Your task to perform on an android device: Search for "logitech g pro" on walmart, select the first entry, add it to the cart, then select checkout. Image 0: 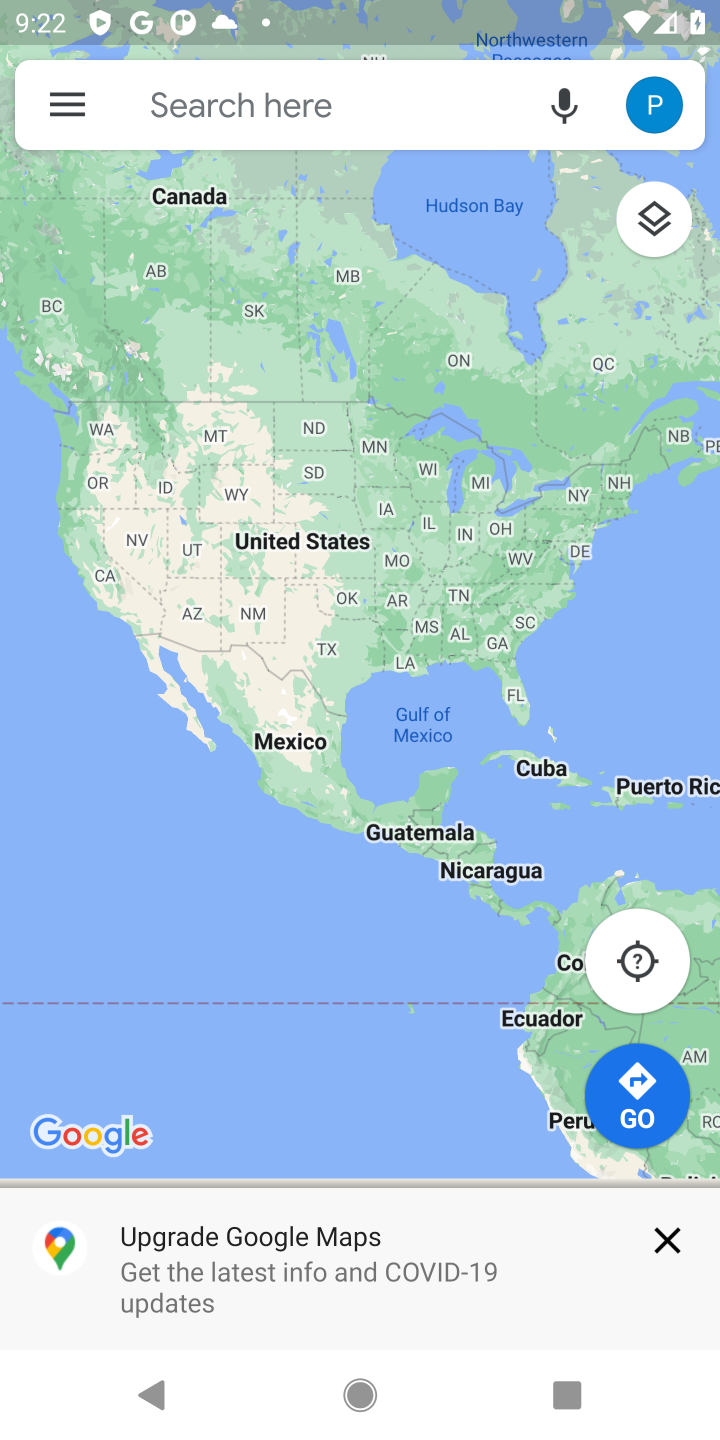
Step 0: press home button
Your task to perform on an android device: Search for "logitech g pro" on walmart, select the first entry, add it to the cart, then select checkout. Image 1: 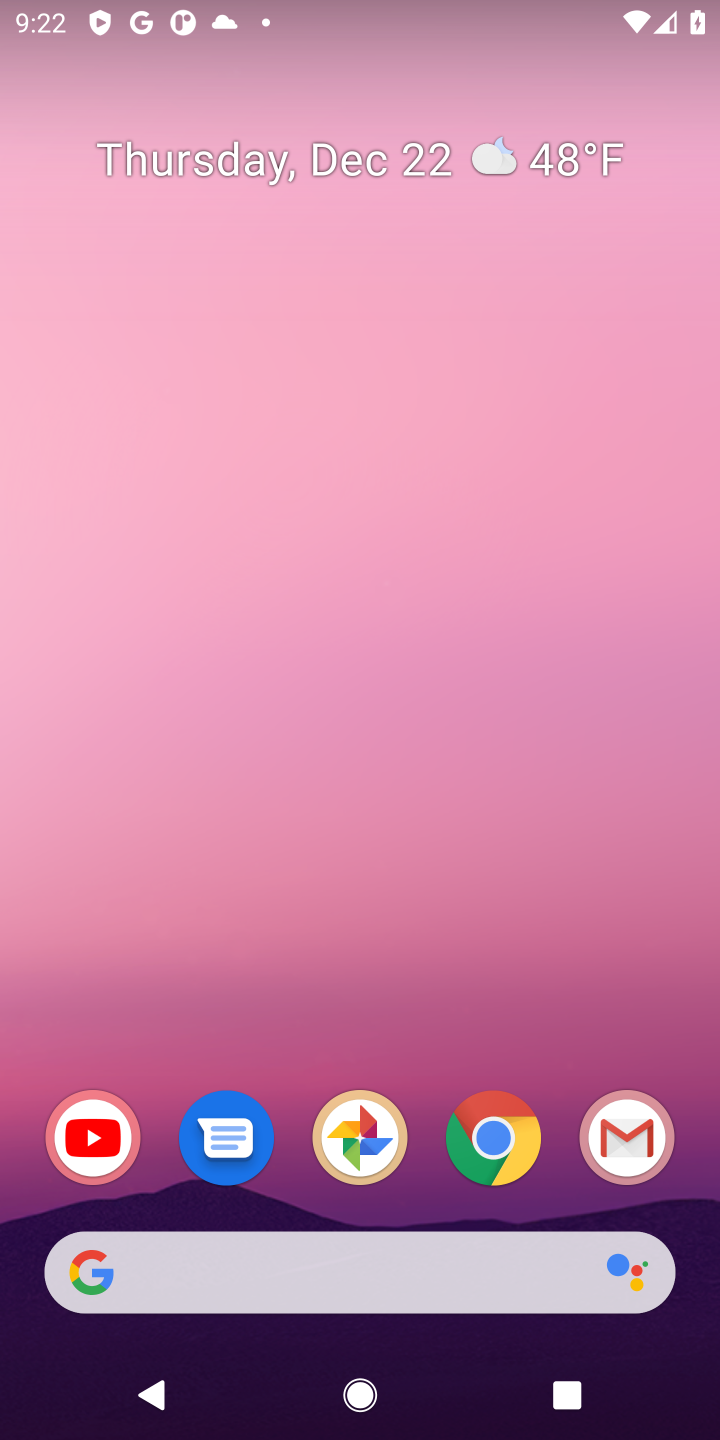
Step 1: click (479, 1185)
Your task to perform on an android device: Search for "logitech g pro" on walmart, select the first entry, add it to the cart, then select checkout. Image 2: 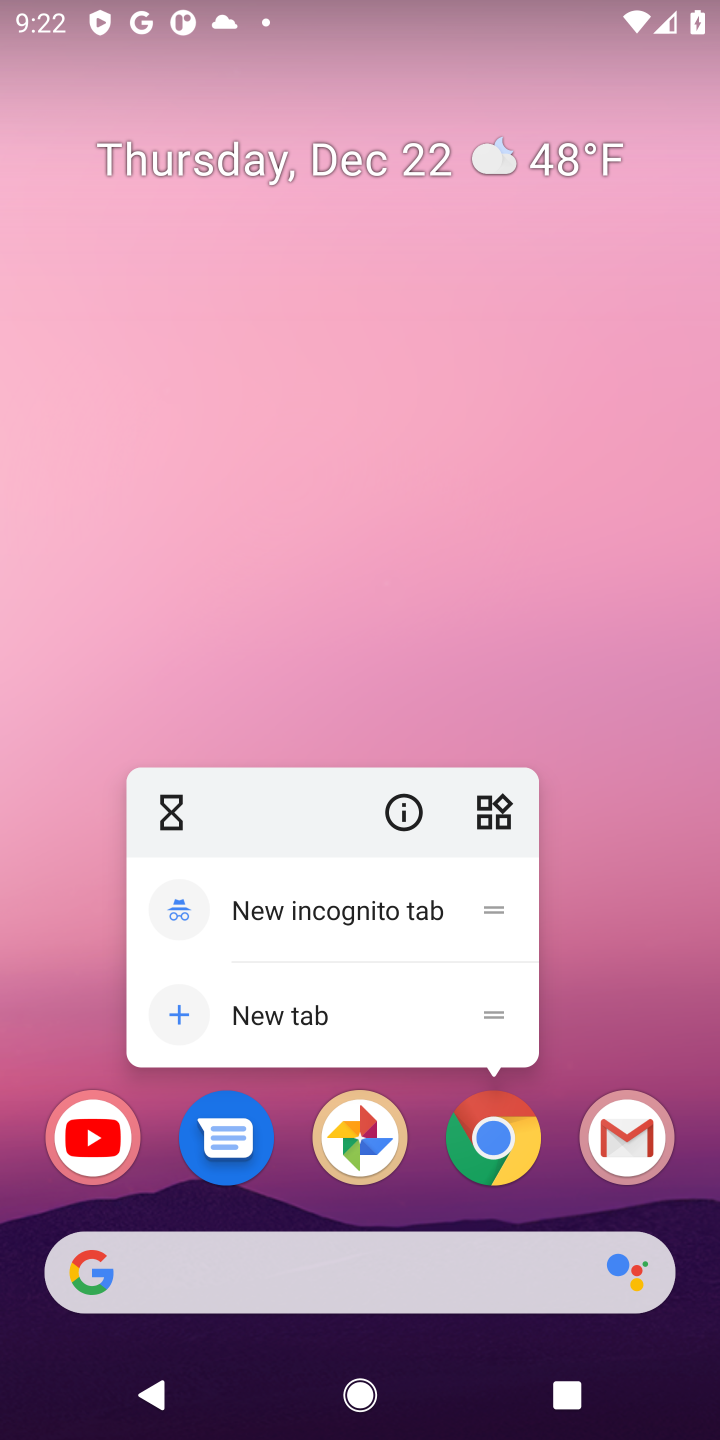
Step 2: click (493, 1150)
Your task to perform on an android device: Search for "logitech g pro" on walmart, select the first entry, add it to the cart, then select checkout. Image 3: 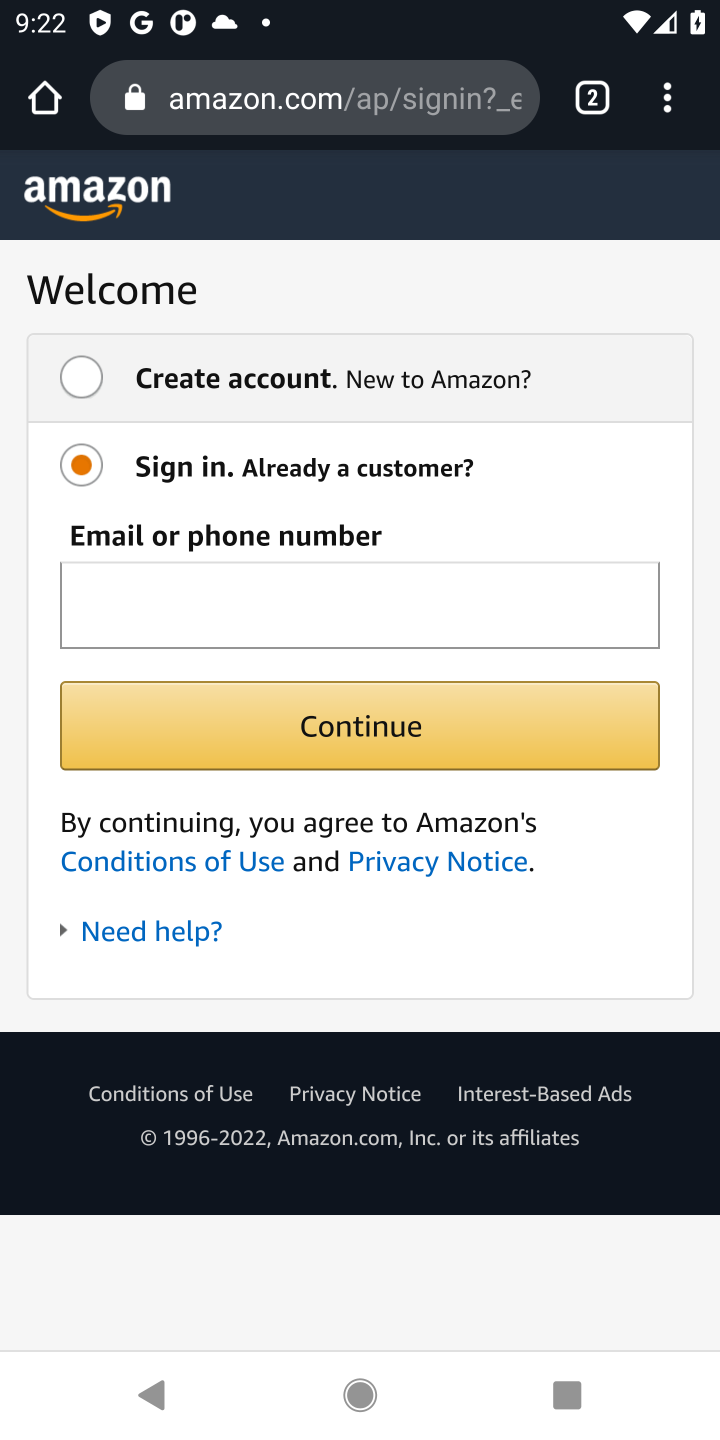
Step 3: click (227, 106)
Your task to perform on an android device: Search for "logitech g pro" on walmart, select the first entry, add it to the cart, then select checkout. Image 4: 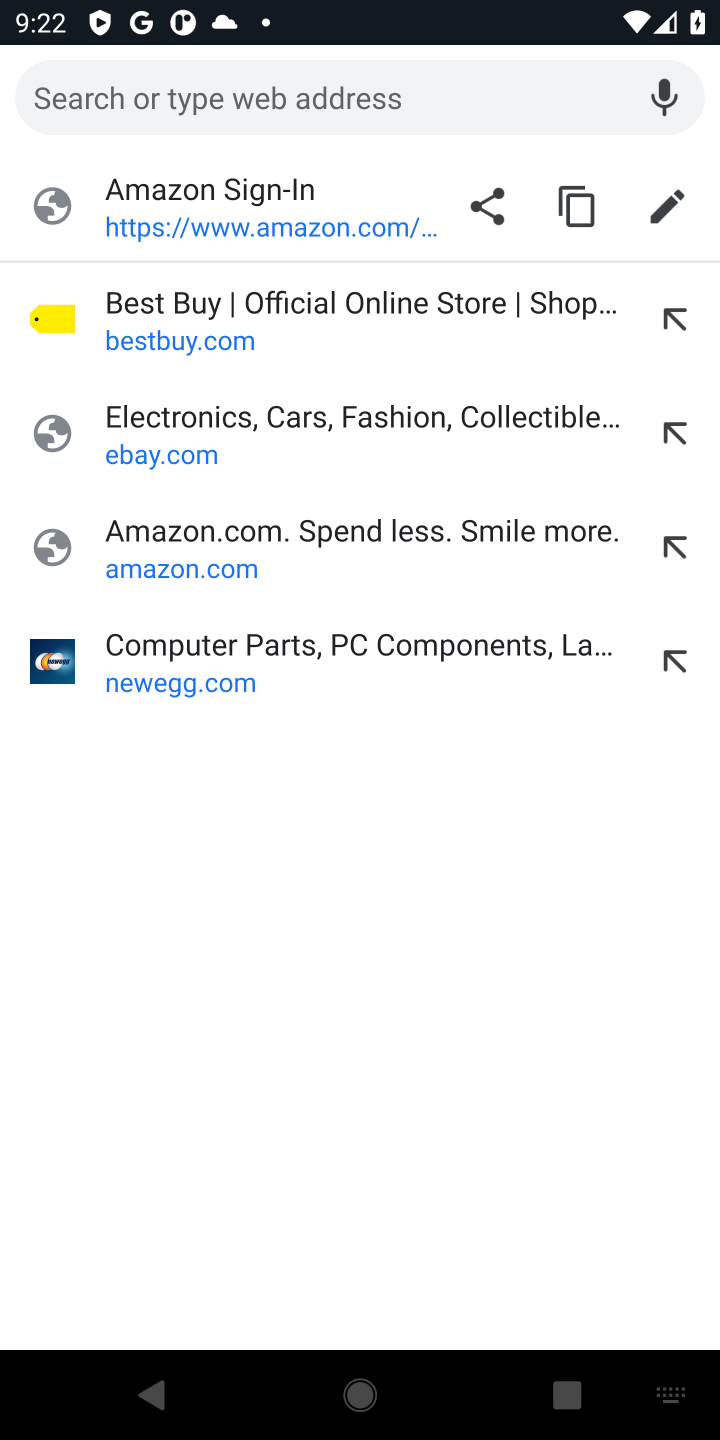
Step 4: type "walmart"
Your task to perform on an android device: Search for "logitech g pro" on walmart, select the first entry, add it to the cart, then select checkout. Image 5: 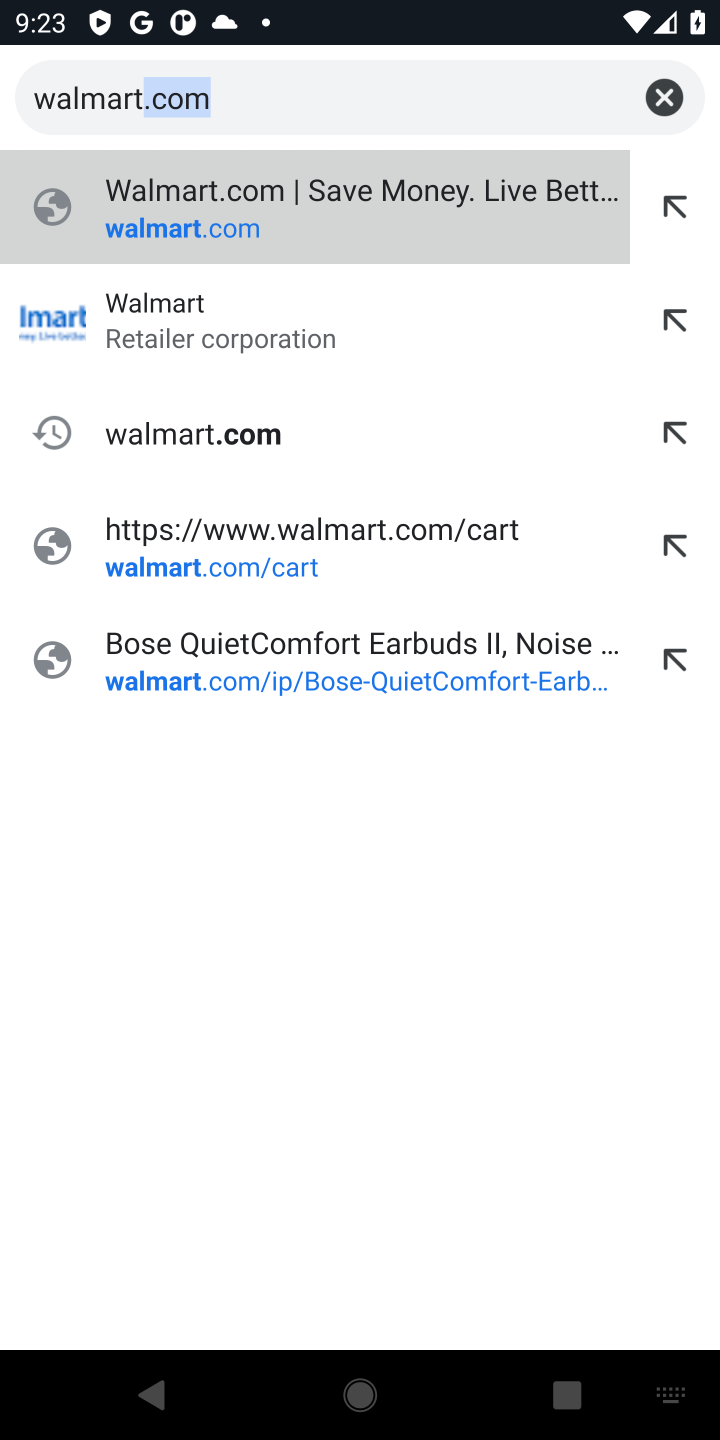
Step 5: click (308, 224)
Your task to perform on an android device: Search for "logitech g pro" on walmart, select the first entry, add it to the cart, then select checkout. Image 6: 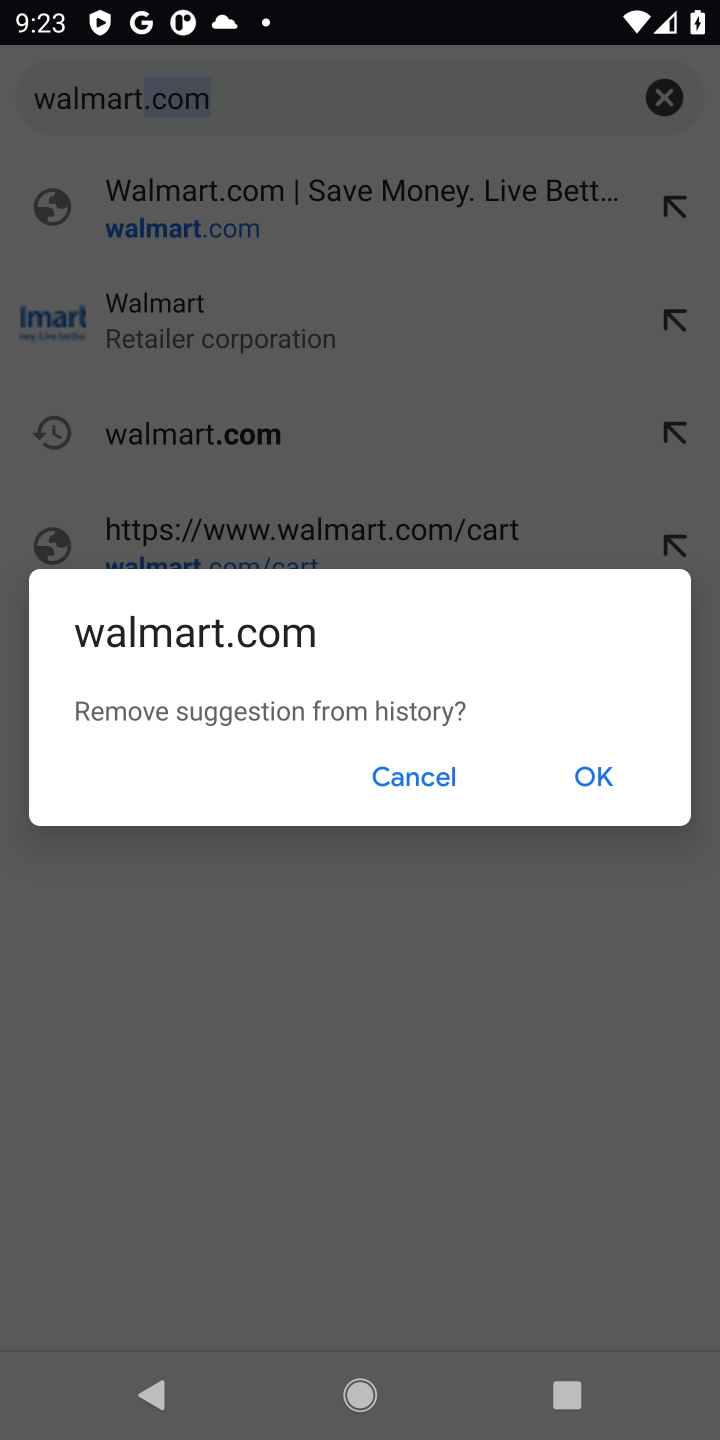
Step 6: click (423, 786)
Your task to perform on an android device: Search for "logitech g pro" on walmart, select the first entry, add it to the cart, then select checkout. Image 7: 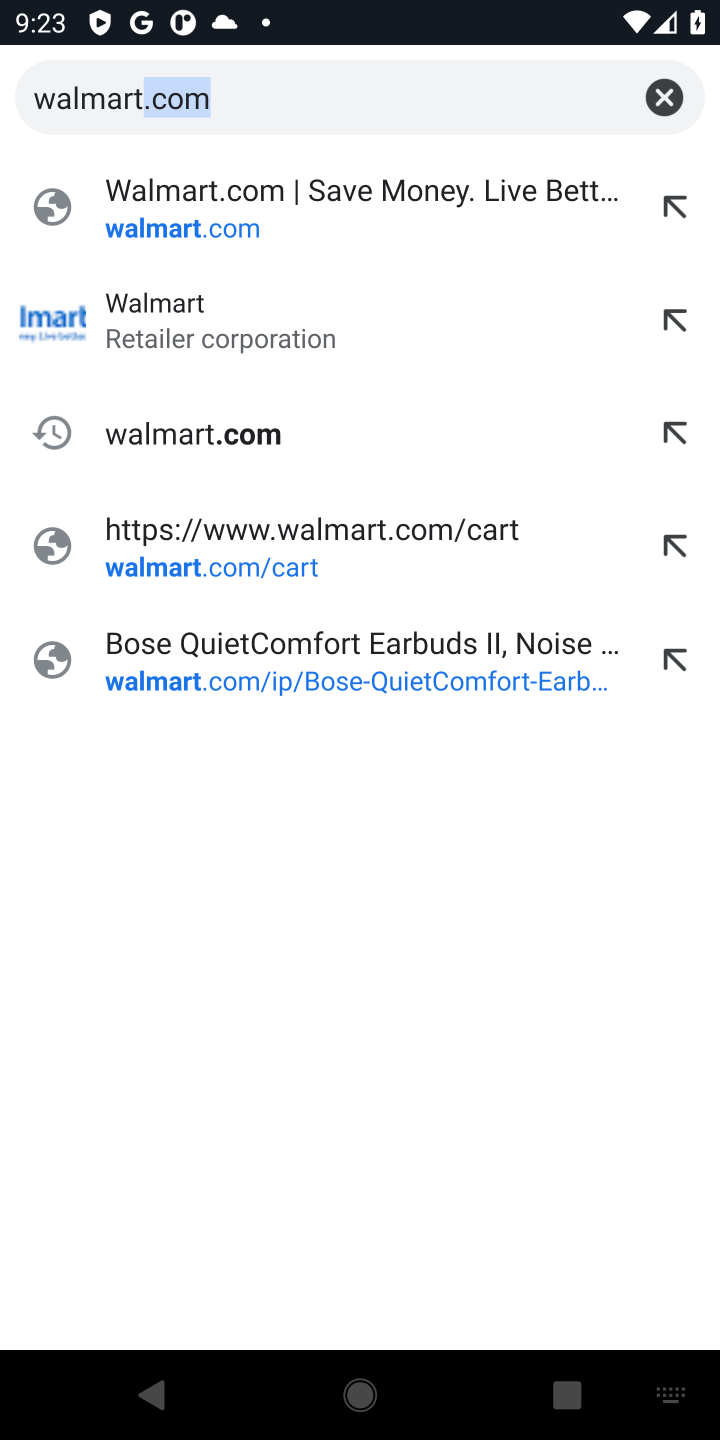
Step 7: click (302, 216)
Your task to perform on an android device: Search for "logitech g pro" on walmart, select the first entry, add it to the cart, then select checkout. Image 8: 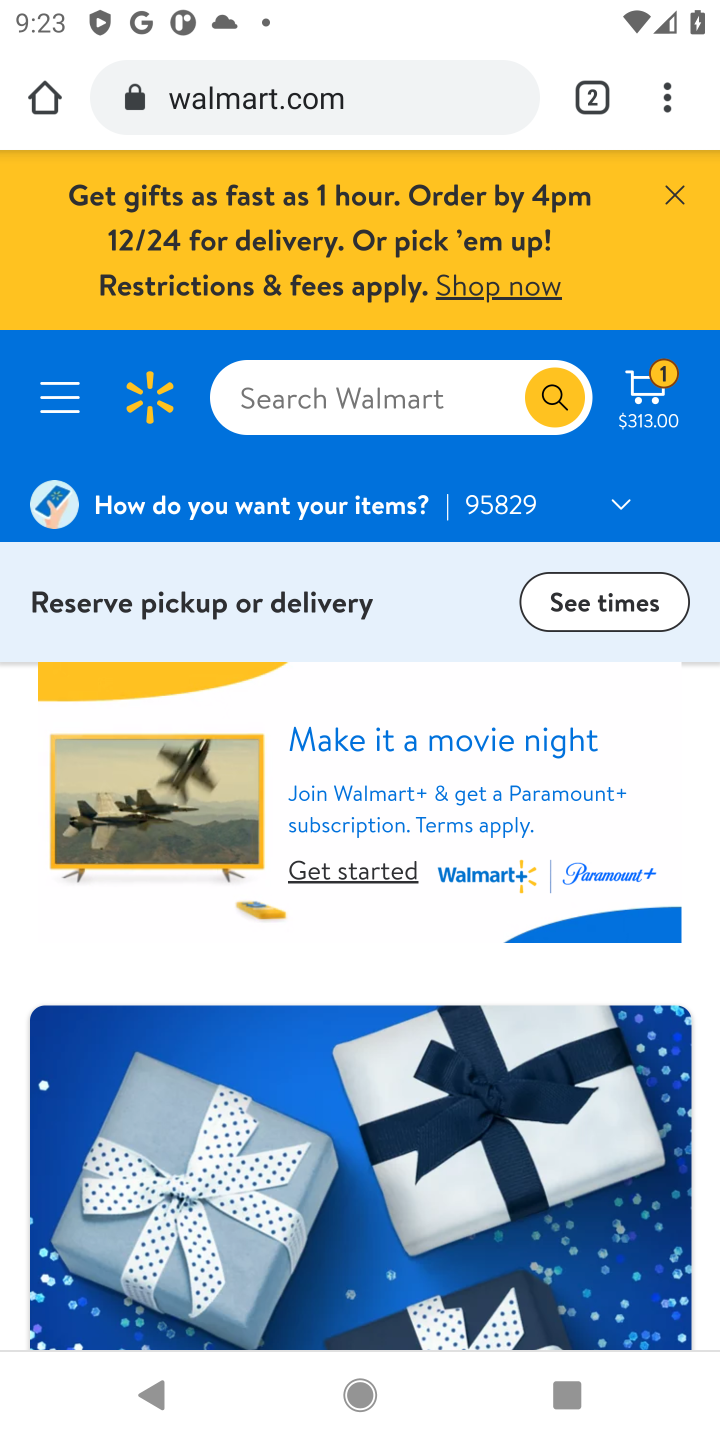
Step 8: click (417, 410)
Your task to perform on an android device: Search for "logitech g pro" on walmart, select the first entry, add it to the cart, then select checkout. Image 9: 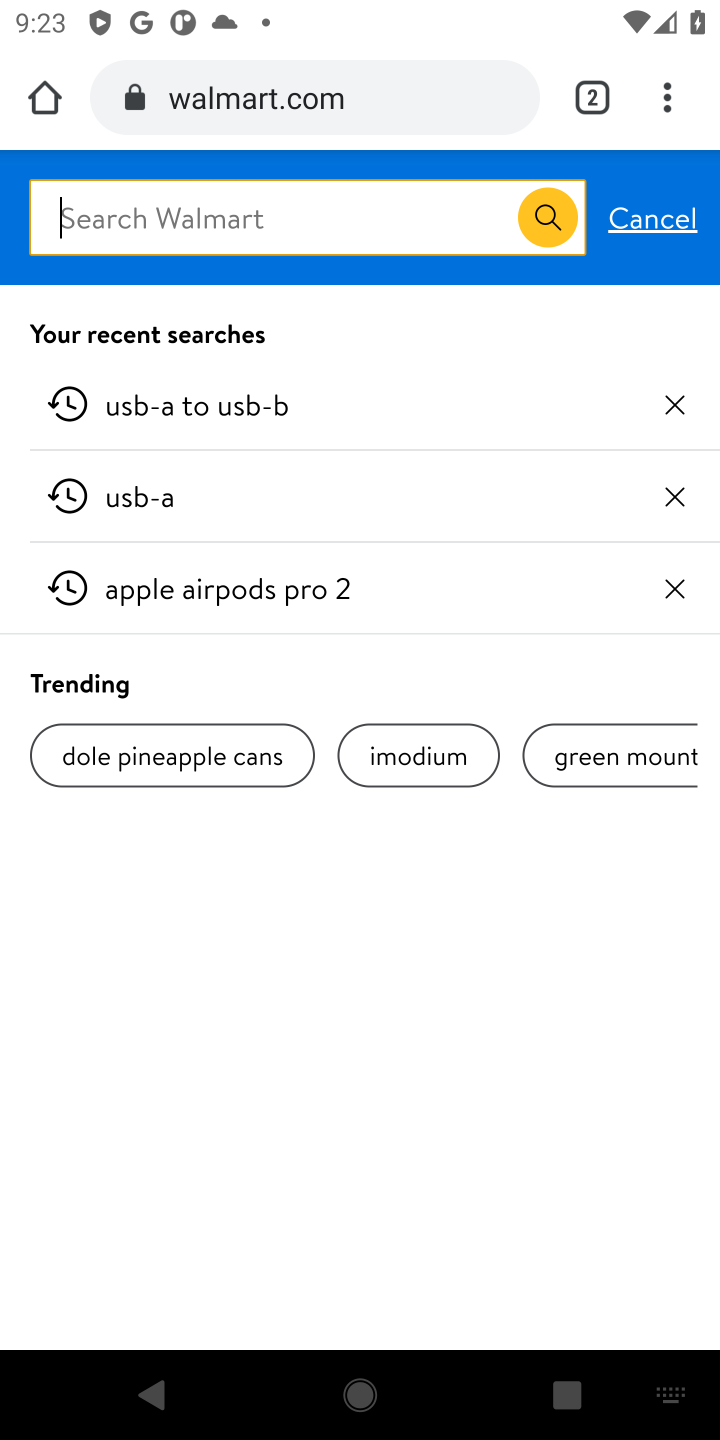
Step 9: type "logitech g pro"
Your task to perform on an android device: Search for "logitech g pro" on walmart, select the first entry, add it to the cart, then select checkout. Image 10: 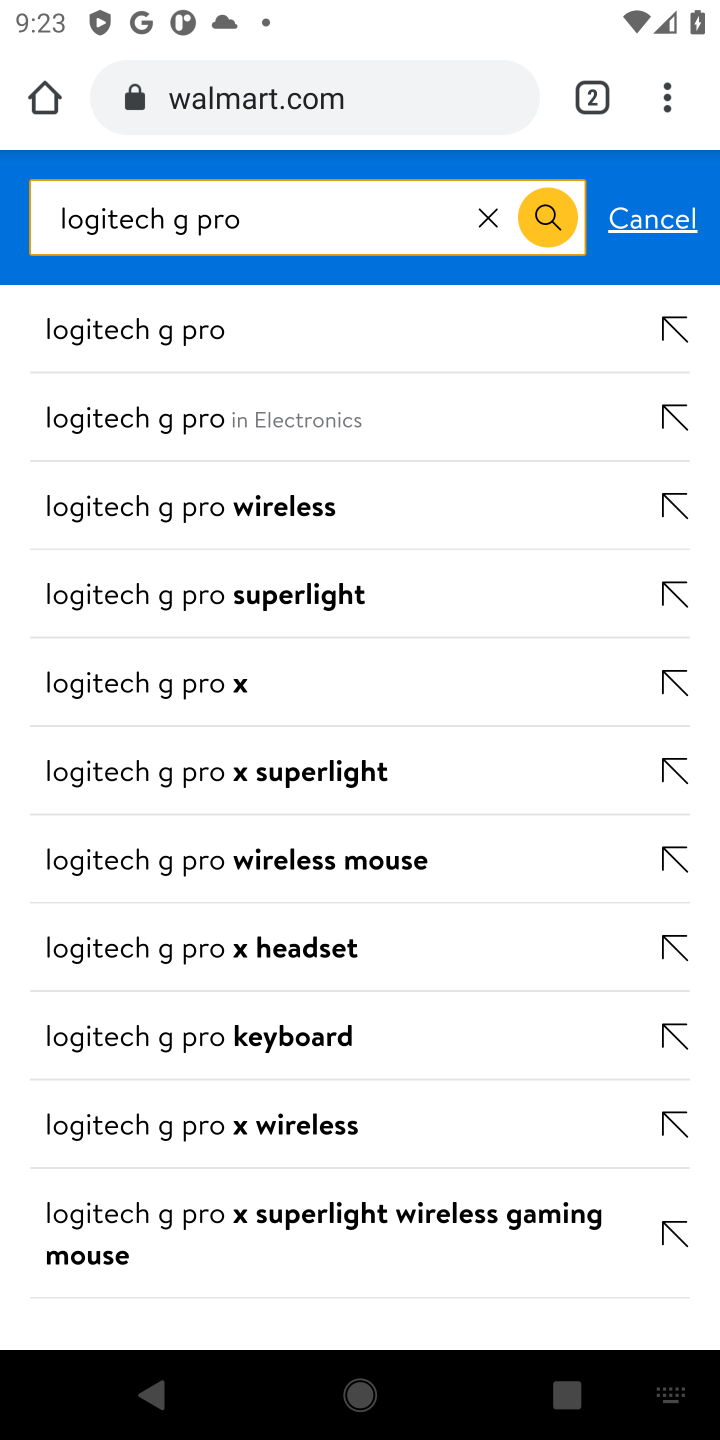
Step 10: click (557, 226)
Your task to perform on an android device: Search for "logitech g pro" on walmart, select the first entry, add it to the cart, then select checkout. Image 11: 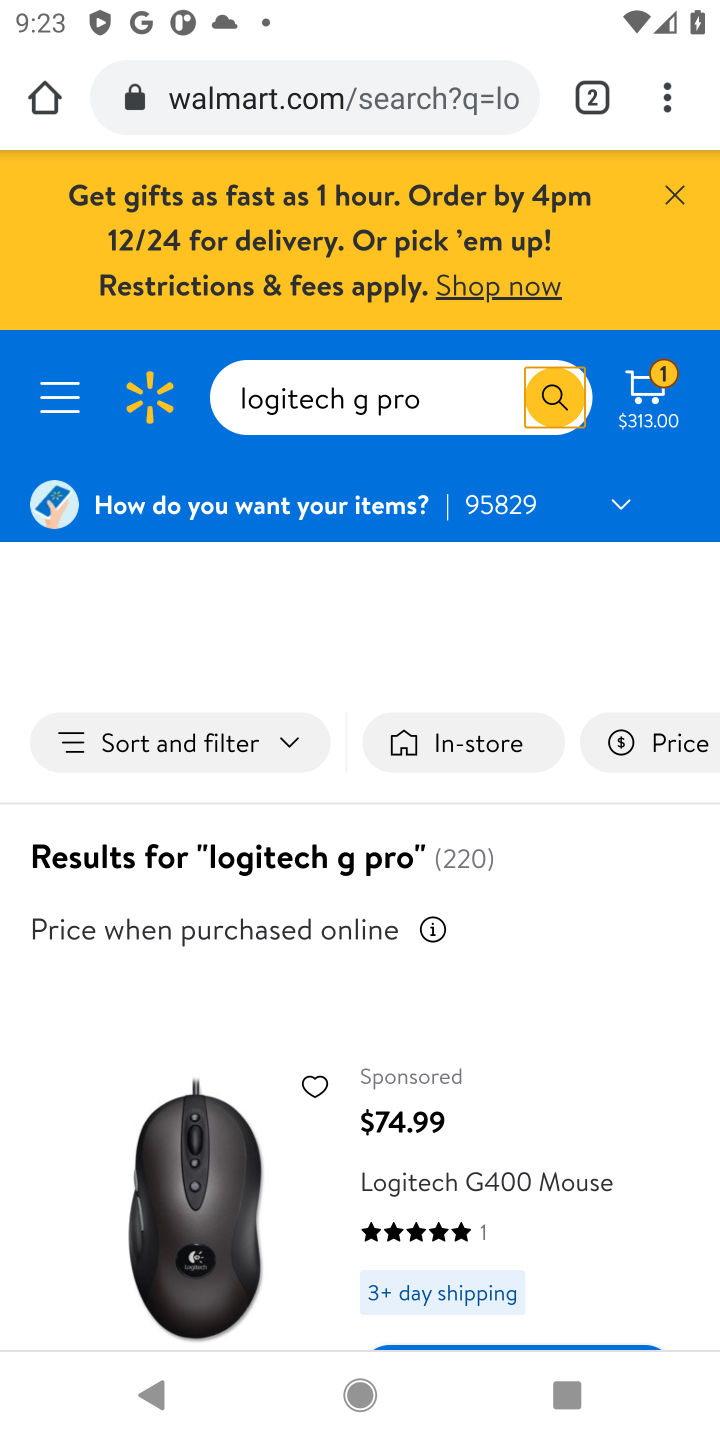
Step 11: drag from (561, 1069) to (545, 326)
Your task to perform on an android device: Search for "logitech g pro" on walmart, select the first entry, add it to the cart, then select checkout. Image 12: 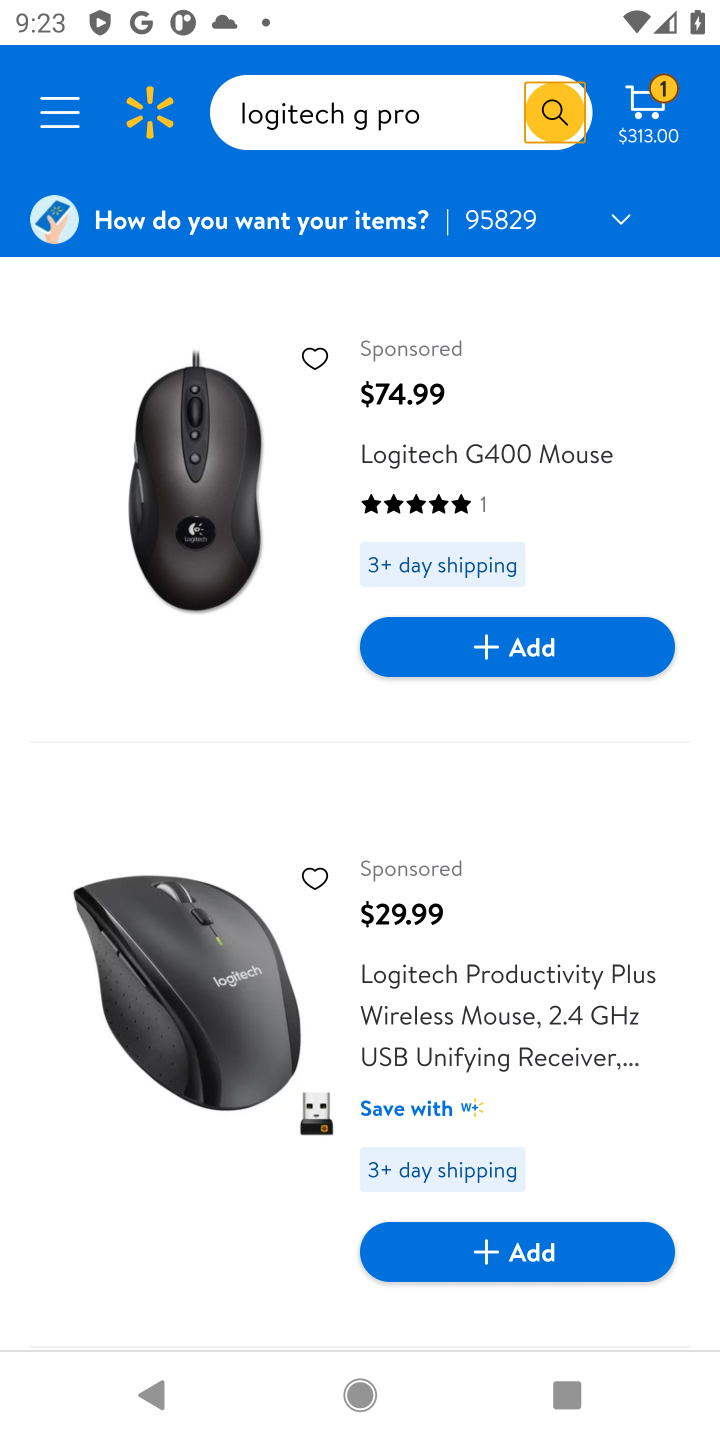
Step 12: drag from (573, 790) to (601, 293)
Your task to perform on an android device: Search for "logitech g pro" on walmart, select the first entry, add it to the cart, then select checkout. Image 13: 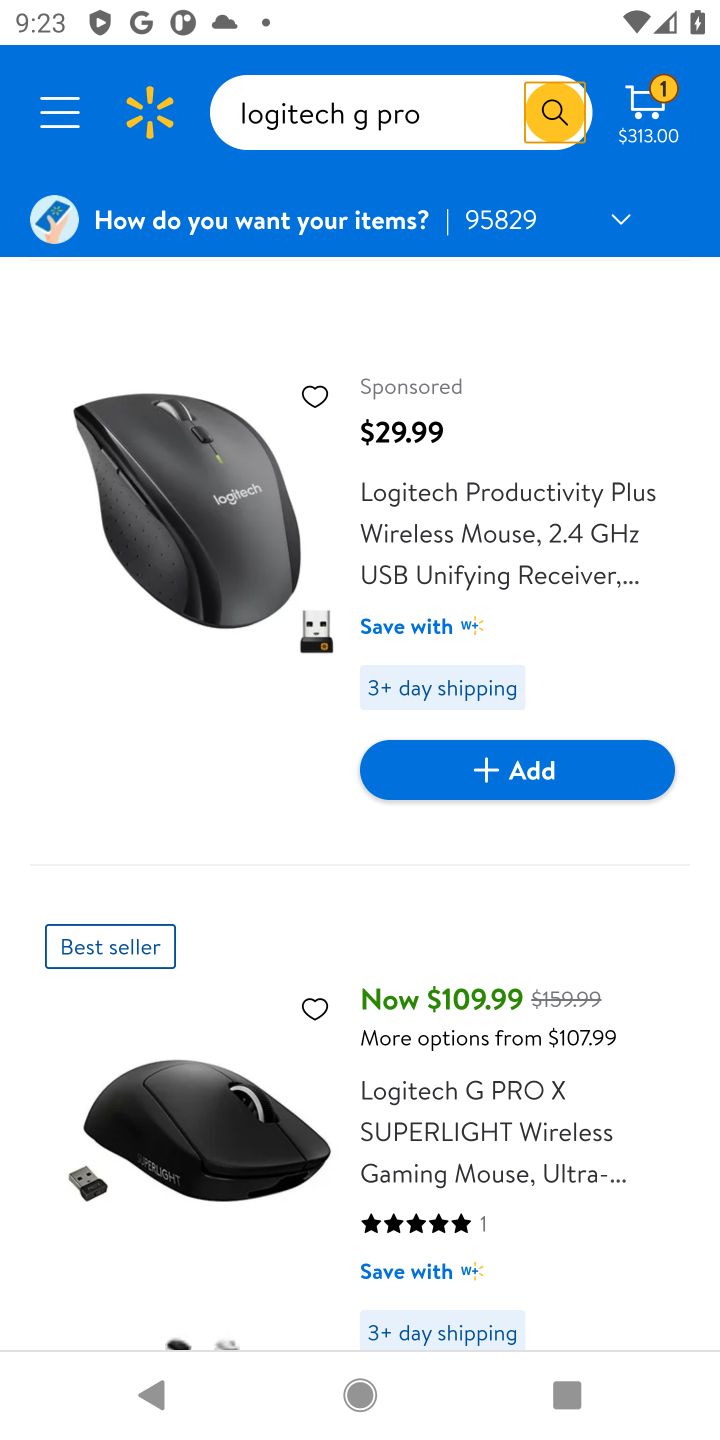
Step 13: click (263, 1160)
Your task to perform on an android device: Search for "logitech g pro" on walmart, select the first entry, add it to the cart, then select checkout. Image 14: 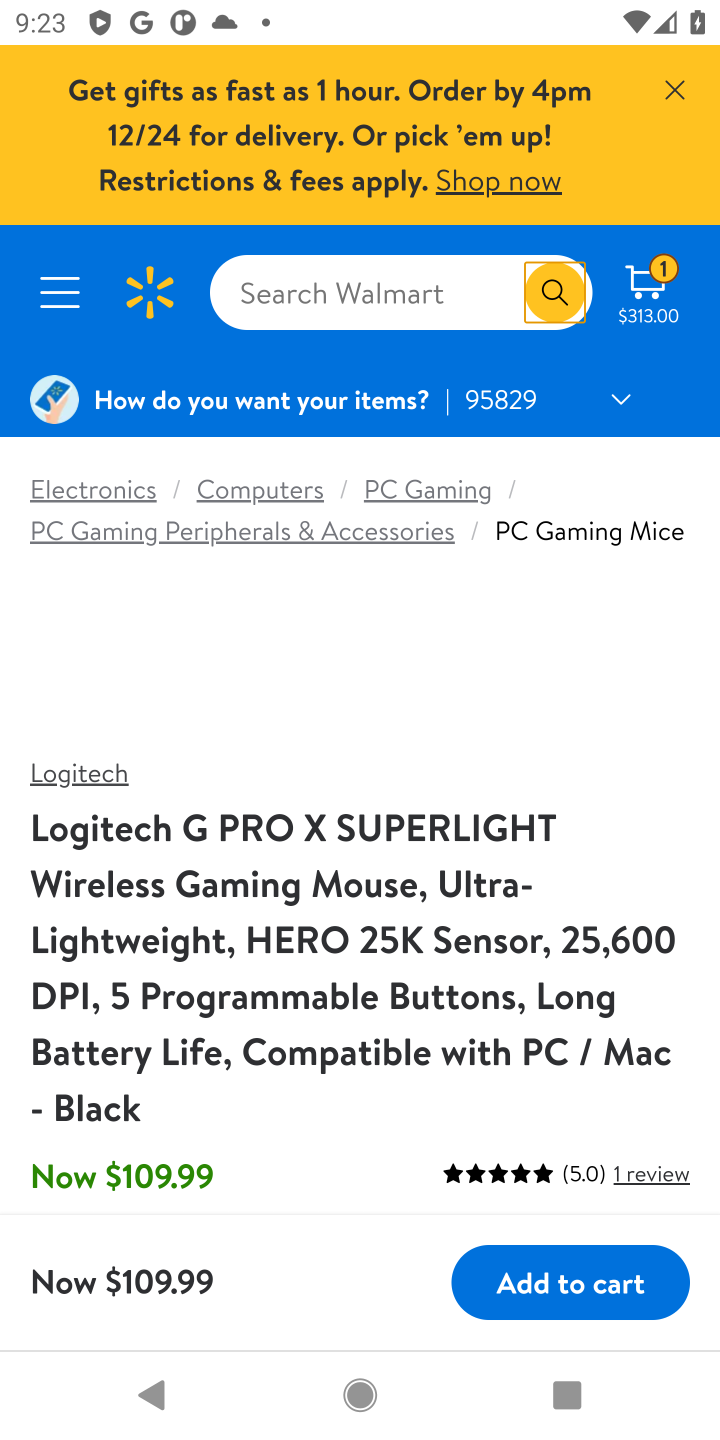
Step 14: click (547, 1287)
Your task to perform on an android device: Search for "logitech g pro" on walmart, select the first entry, add it to the cart, then select checkout. Image 15: 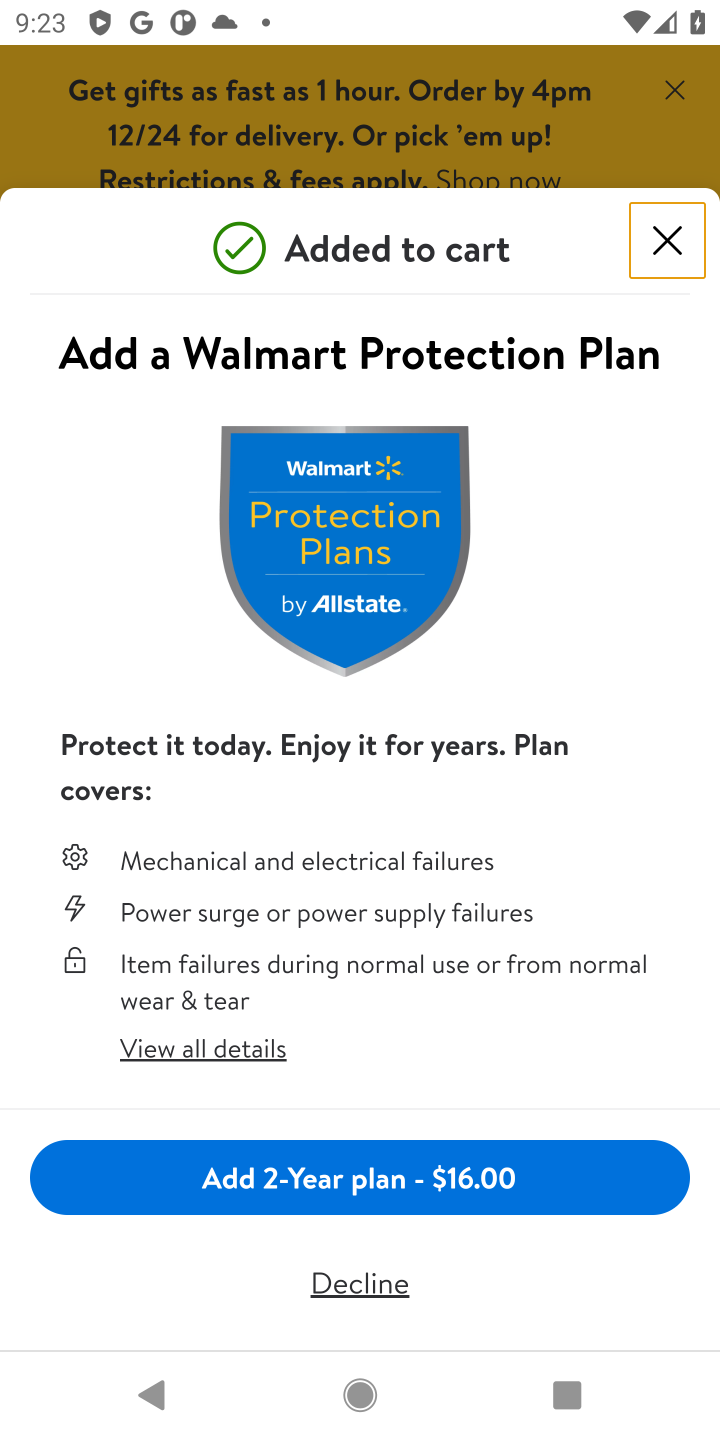
Step 15: click (418, 1186)
Your task to perform on an android device: Search for "logitech g pro" on walmart, select the first entry, add it to the cart, then select checkout. Image 16: 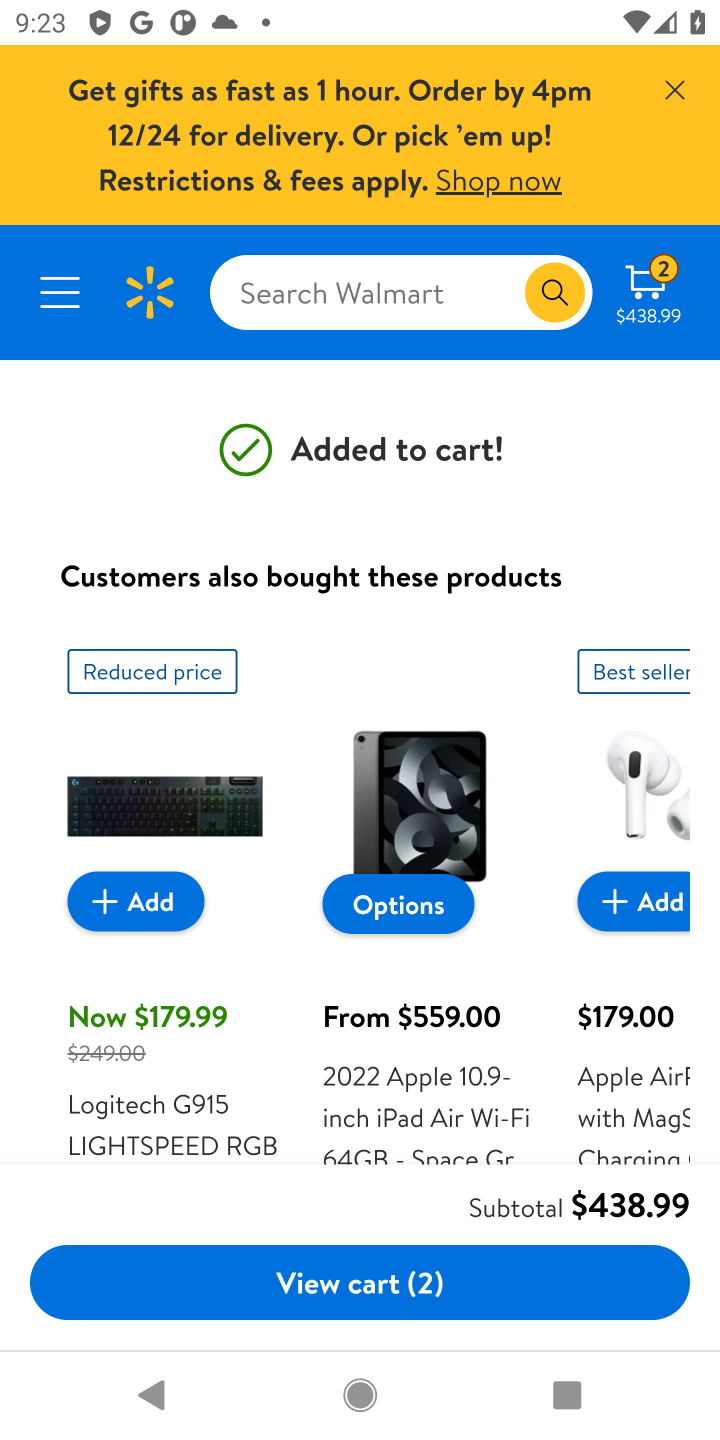
Step 16: click (339, 1291)
Your task to perform on an android device: Search for "logitech g pro" on walmart, select the first entry, add it to the cart, then select checkout. Image 17: 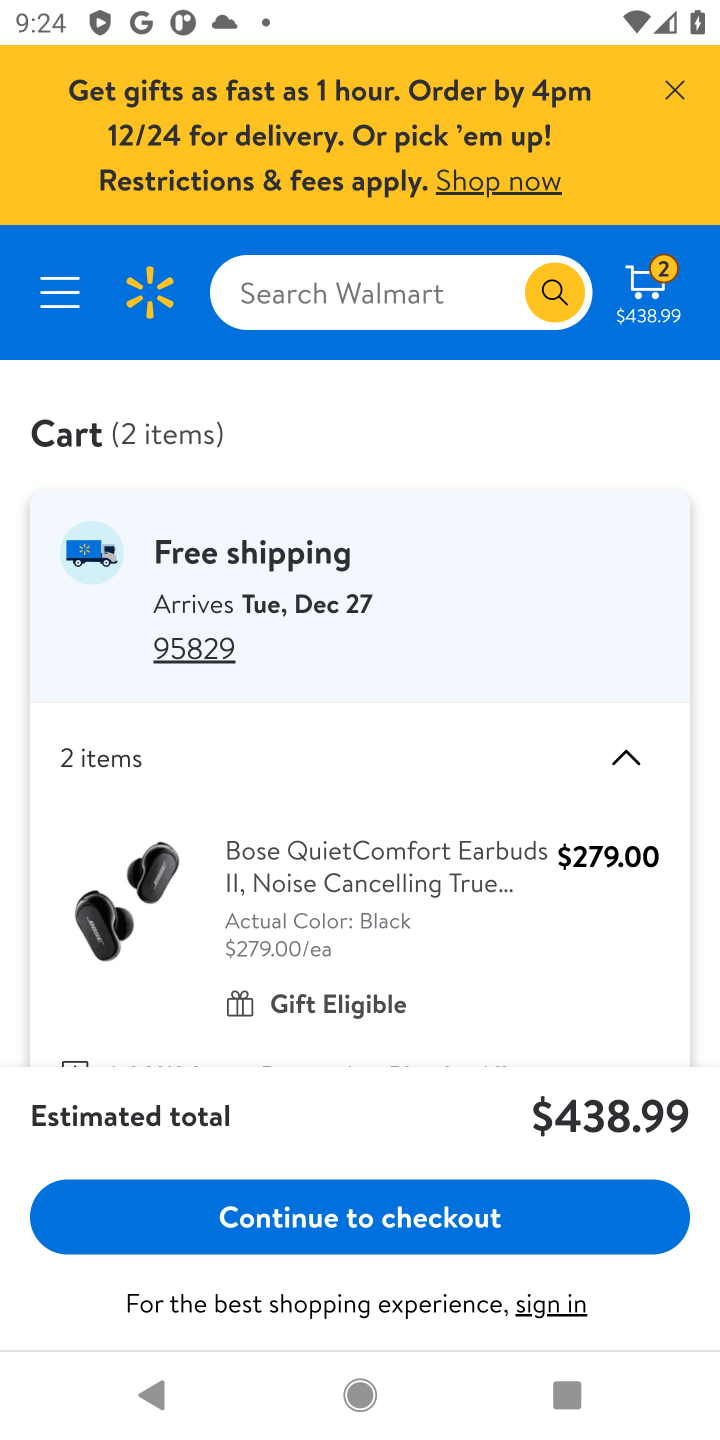
Step 17: click (297, 1244)
Your task to perform on an android device: Search for "logitech g pro" on walmart, select the first entry, add it to the cart, then select checkout. Image 18: 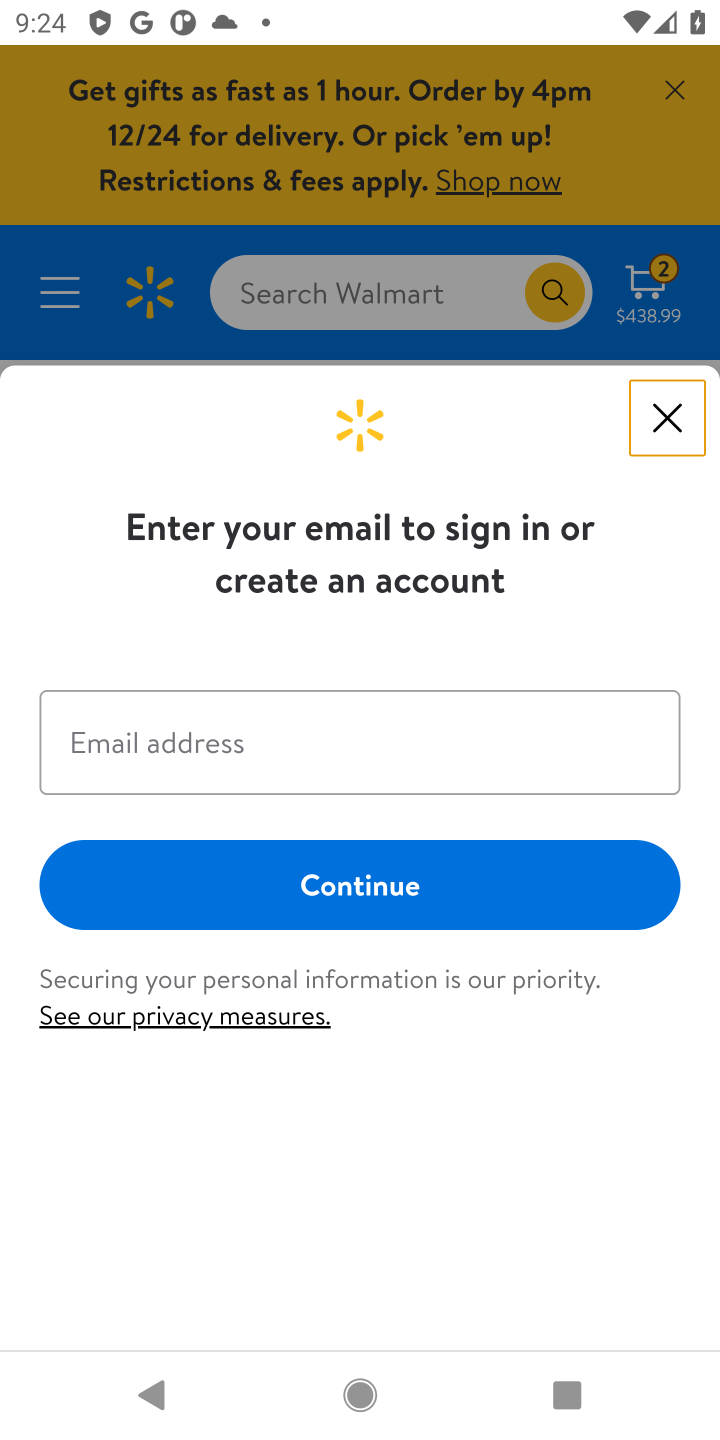
Step 18: task complete